Your task to perform on an android device: Check the news Image 0: 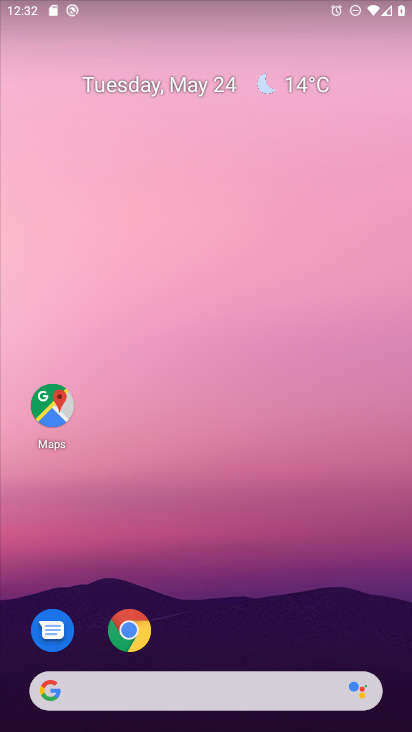
Step 0: drag from (345, 607) to (317, 130)
Your task to perform on an android device: Check the news Image 1: 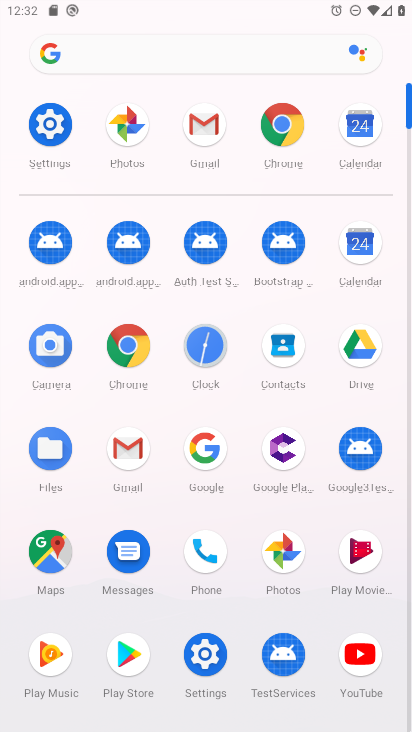
Step 1: click (123, 347)
Your task to perform on an android device: Check the news Image 2: 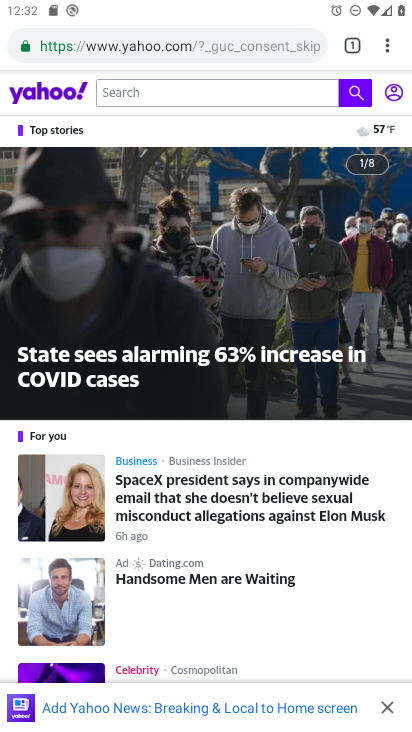
Step 2: click (149, 44)
Your task to perform on an android device: Check the news Image 3: 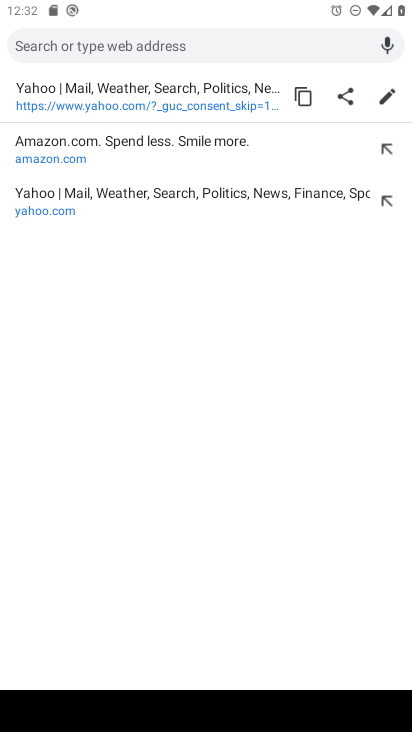
Step 3: type "check the news"
Your task to perform on an android device: Check the news Image 4: 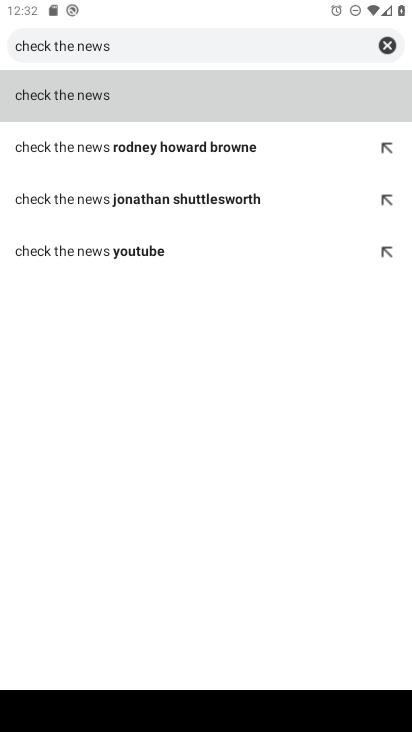
Step 4: click (133, 93)
Your task to perform on an android device: Check the news Image 5: 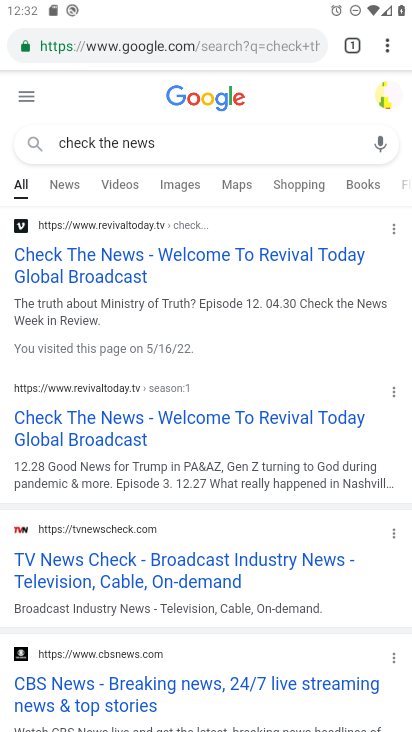
Step 5: task complete